Your task to perform on an android device: set the stopwatch Image 0: 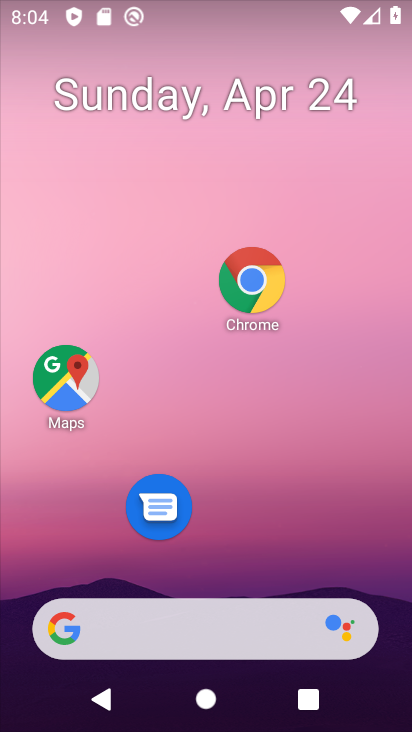
Step 0: drag from (289, 696) to (222, 109)
Your task to perform on an android device: set the stopwatch Image 1: 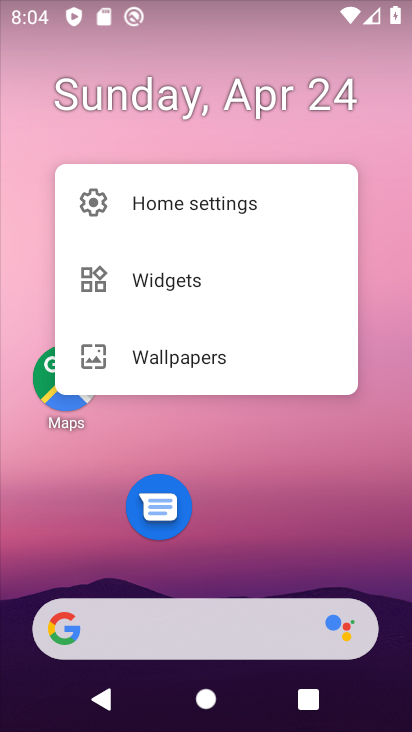
Step 1: drag from (207, 513) to (112, 51)
Your task to perform on an android device: set the stopwatch Image 2: 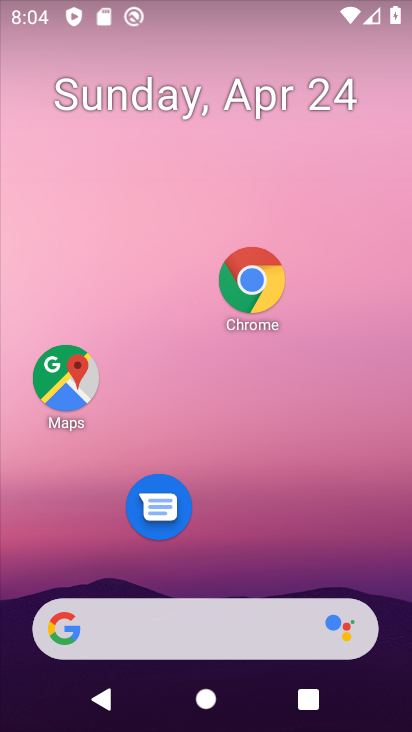
Step 2: click (21, 154)
Your task to perform on an android device: set the stopwatch Image 3: 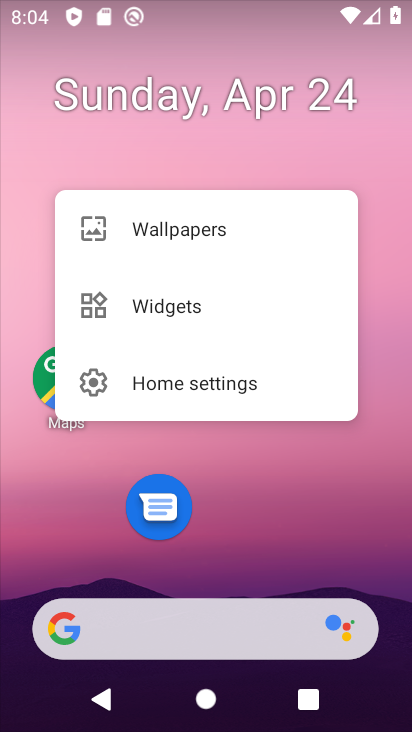
Step 3: drag from (258, 471) to (144, 42)
Your task to perform on an android device: set the stopwatch Image 4: 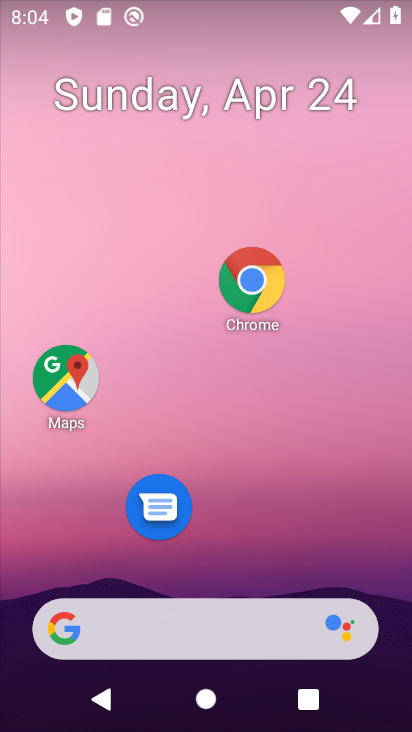
Step 4: drag from (263, 504) to (129, 13)
Your task to perform on an android device: set the stopwatch Image 5: 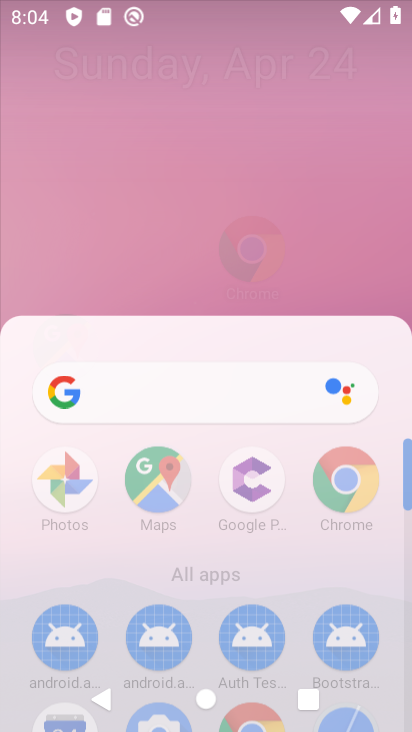
Step 5: drag from (271, 522) to (150, 22)
Your task to perform on an android device: set the stopwatch Image 6: 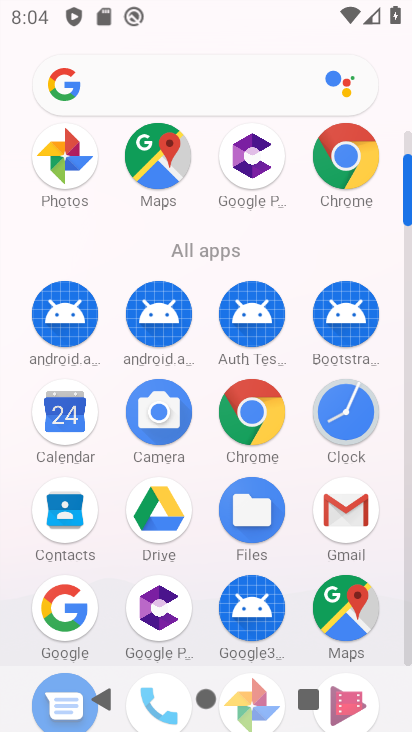
Step 6: click (340, 403)
Your task to perform on an android device: set the stopwatch Image 7: 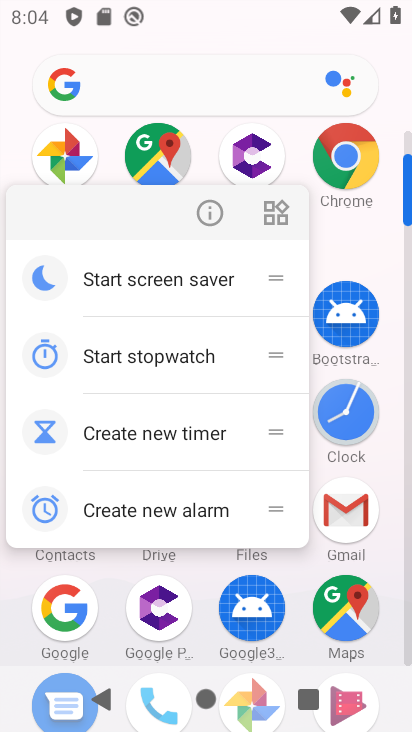
Step 7: click (353, 393)
Your task to perform on an android device: set the stopwatch Image 8: 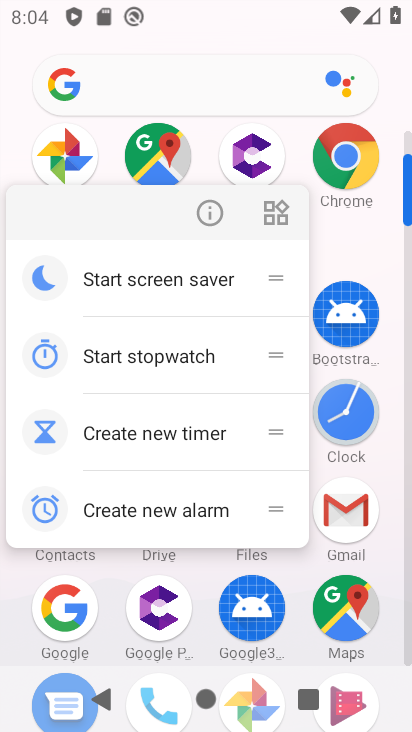
Step 8: click (353, 393)
Your task to perform on an android device: set the stopwatch Image 9: 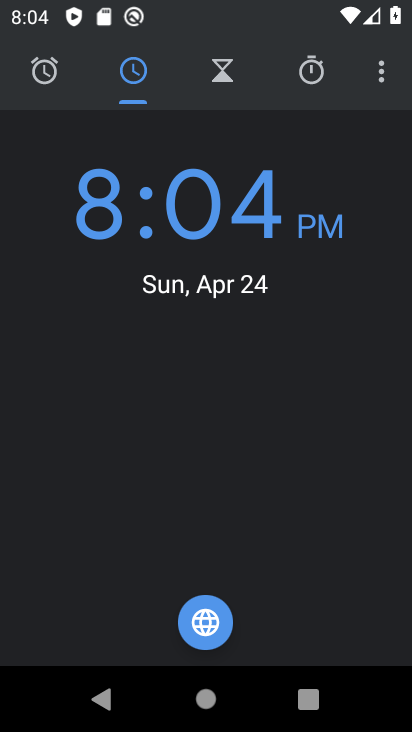
Step 9: click (324, 55)
Your task to perform on an android device: set the stopwatch Image 10: 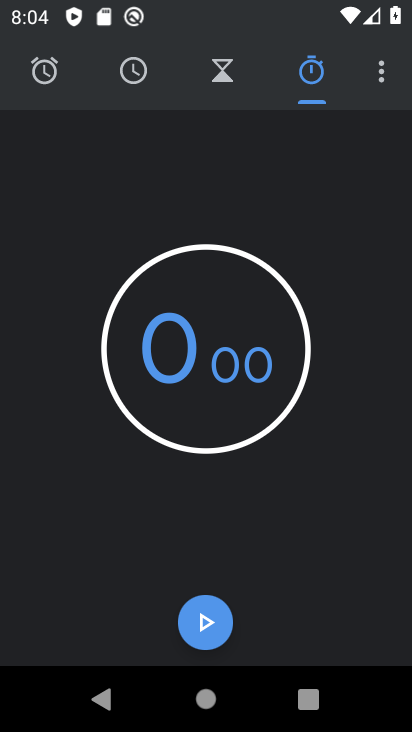
Step 10: click (203, 629)
Your task to perform on an android device: set the stopwatch Image 11: 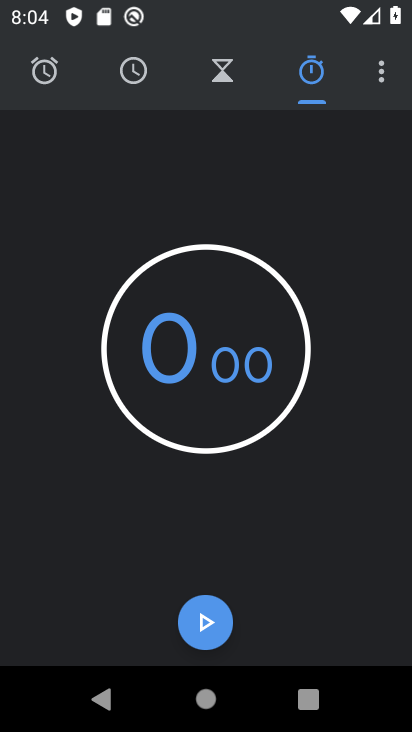
Step 11: click (205, 620)
Your task to perform on an android device: set the stopwatch Image 12: 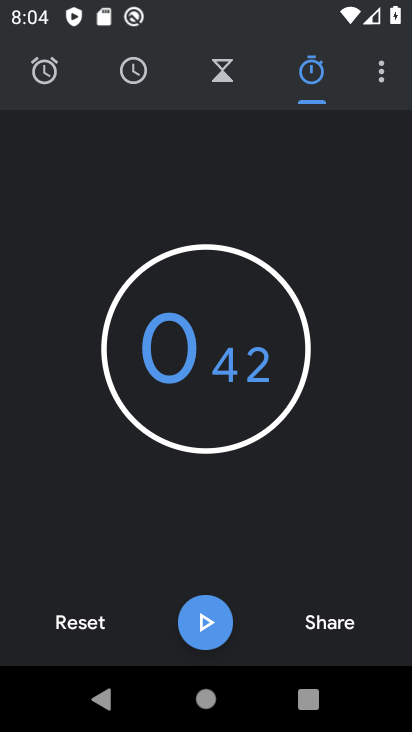
Step 12: click (205, 627)
Your task to perform on an android device: set the stopwatch Image 13: 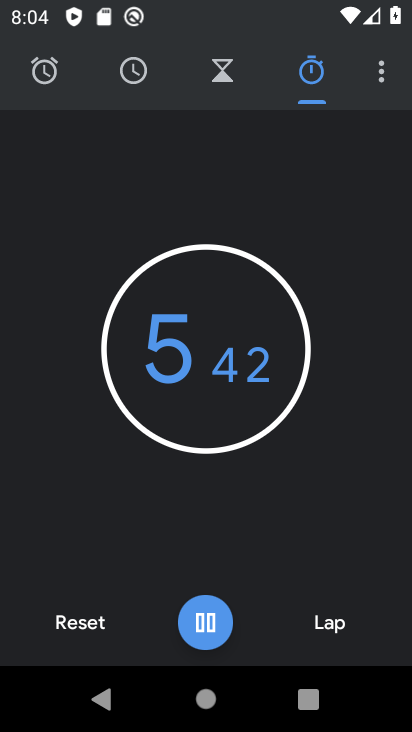
Step 13: click (207, 615)
Your task to perform on an android device: set the stopwatch Image 14: 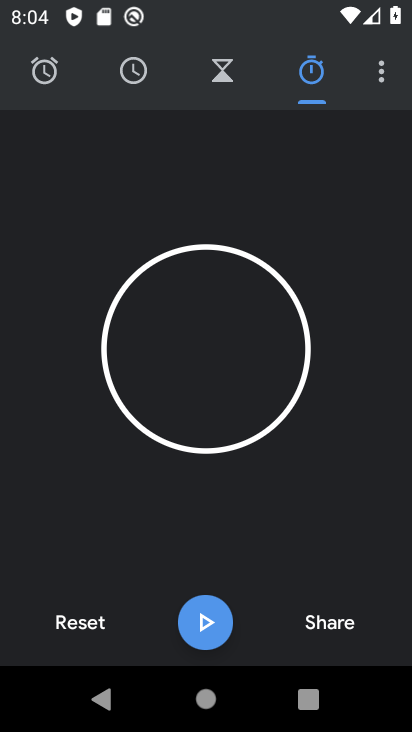
Step 14: task complete